Your task to perform on an android device: turn notification dots on Image 0: 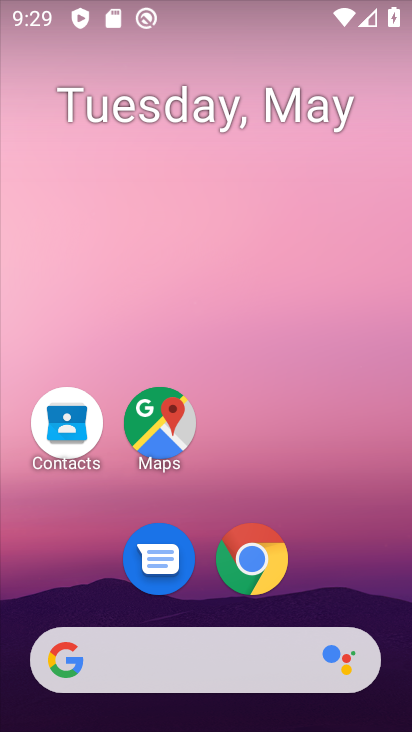
Step 0: drag from (343, 588) to (277, 77)
Your task to perform on an android device: turn notification dots on Image 1: 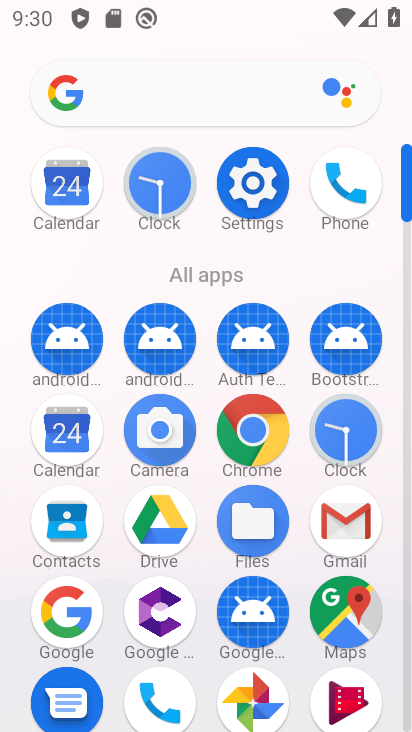
Step 1: click (270, 187)
Your task to perform on an android device: turn notification dots on Image 2: 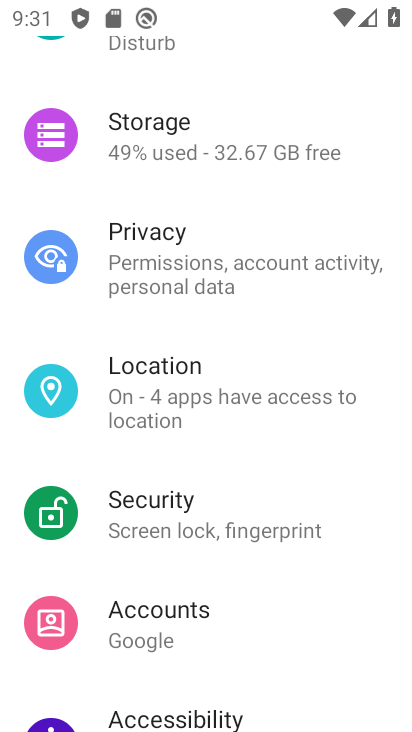
Step 2: drag from (205, 425) to (394, 597)
Your task to perform on an android device: turn notification dots on Image 3: 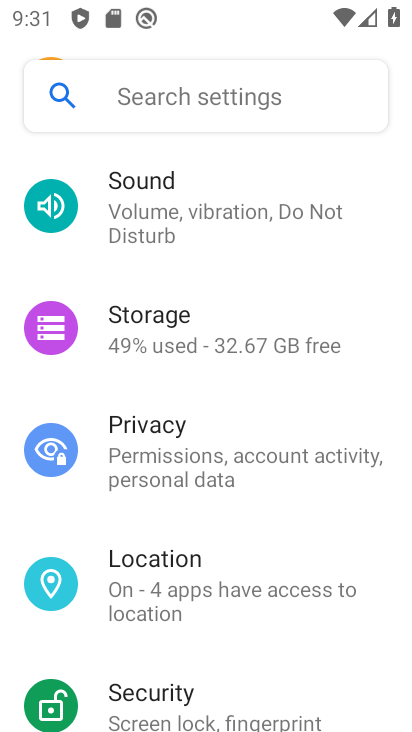
Step 3: drag from (285, 227) to (295, 271)
Your task to perform on an android device: turn notification dots on Image 4: 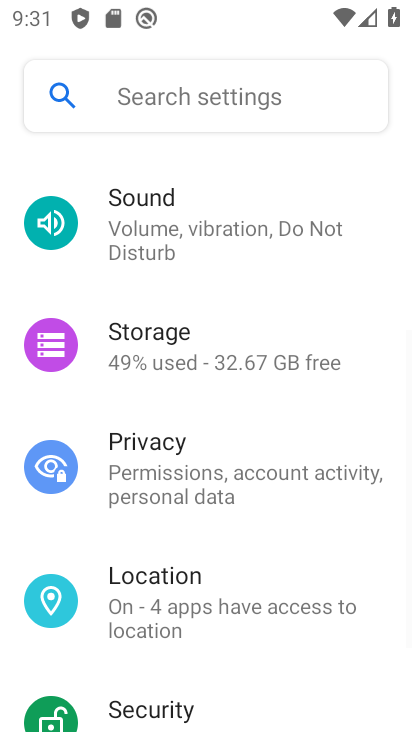
Step 4: drag from (266, 325) to (389, 521)
Your task to perform on an android device: turn notification dots on Image 5: 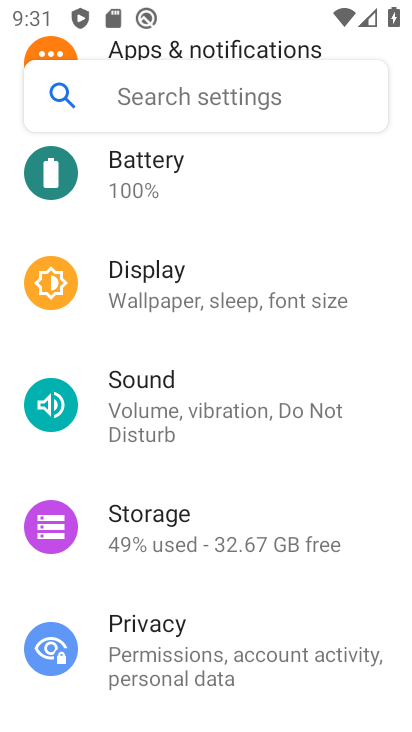
Step 5: click (178, 52)
Your task to perform on an android device: turn notification dots on Image 6: 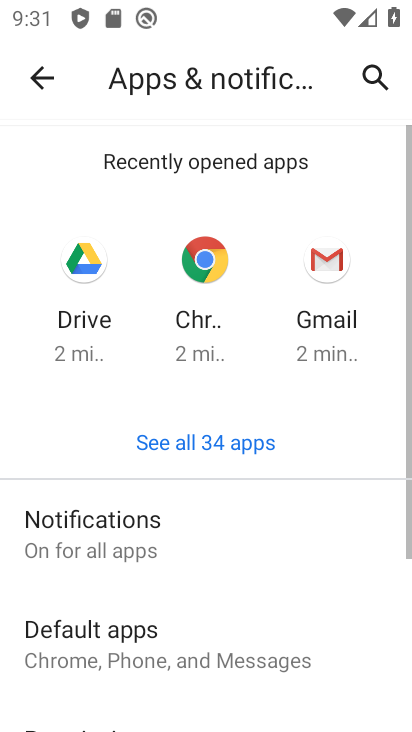
Step 6: drag from (136, 598) to (138, 424)
Your task to perform on an android device: turn notification dots on Image 7: 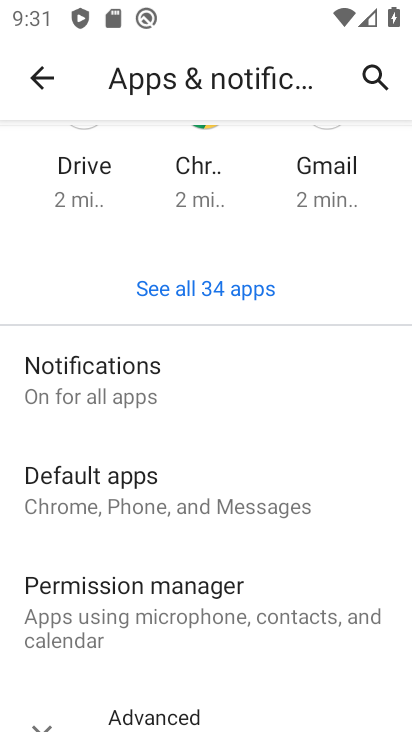
Step 7: click (149, 408)
Your task to perform on an android device: turn notification dots on Image 8: 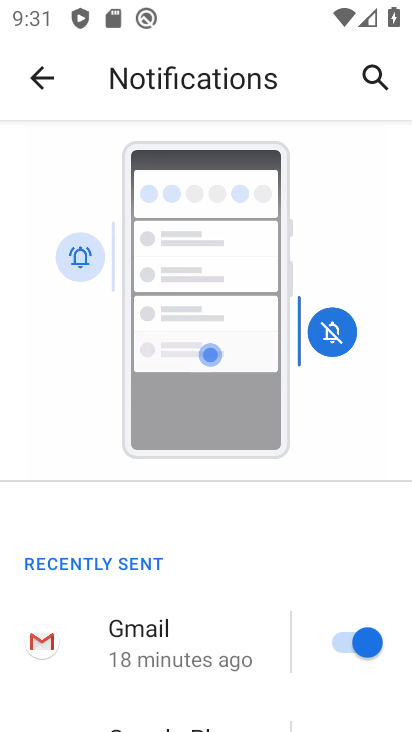
Step 8: drag from (228, 693) to (228, 142)
Your task to perform on an android device: turn notification dots on Image 9: 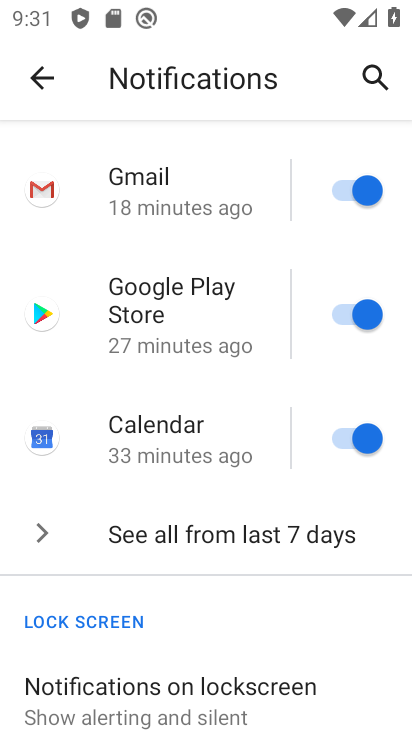
Step 9: drag from (160, 626) to (206, 216)
Your task to perform on an android device: turn notification dots on Image 10: 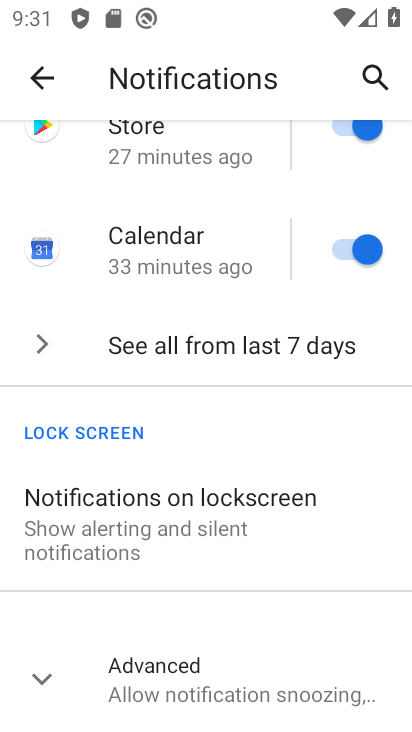
Step 10: click (221, 677)
Your task to perform on an android device: turn notification dots on Image 11: 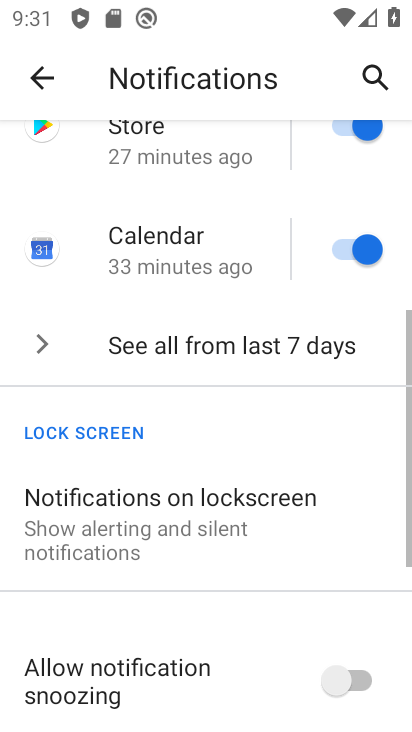
Step 11: task complete